Your task to perform on an android device: Go to wifi settings Image 0: 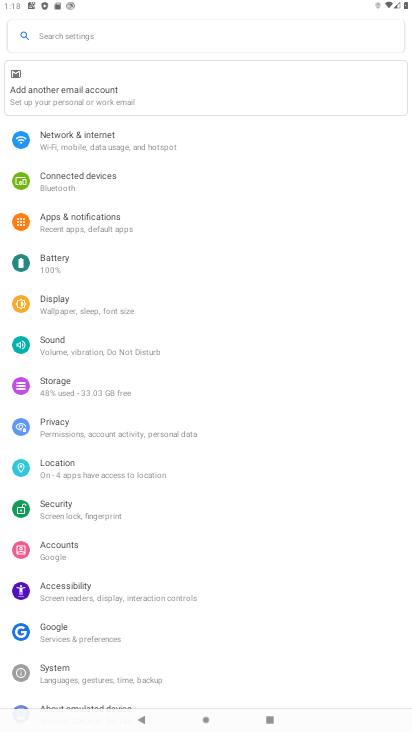
Step 0: press home button
Your task to perform on an android device: Go to wifi settings Image 1: 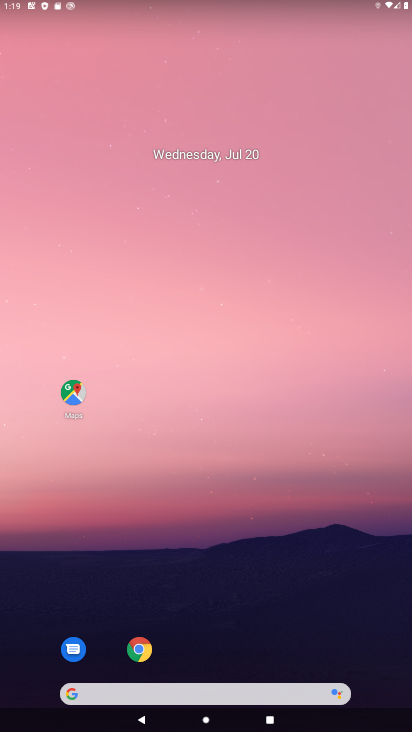
Step 1: drag from (247, 641) to (306, 442)
Your task to perform on an android device: Go to wifi settings Image 2: 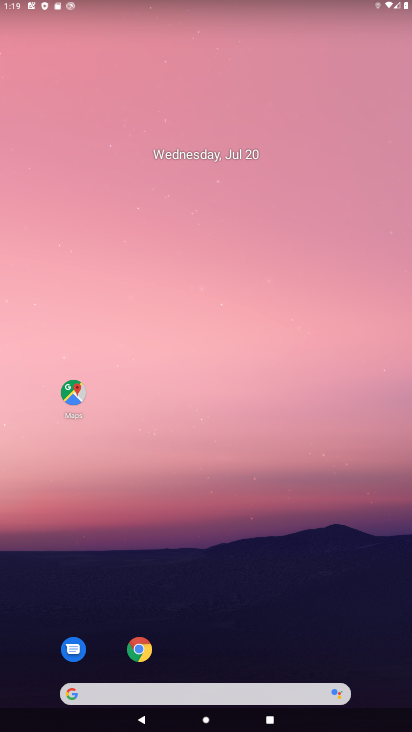
Step 2: drag from (320, 31) to (309, 409)
Your task to perform on an android device: Go to wifi settings Image 3: 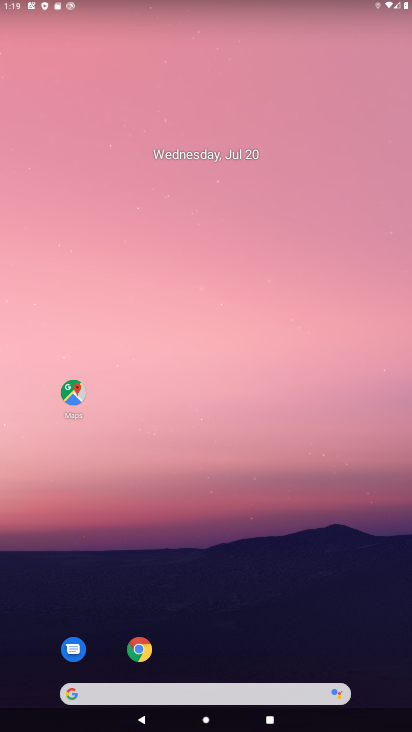
Step 3: drag from (375, 2) to (354, 337)
Your task to perform on an android device: Go to wifi settings Image 4: 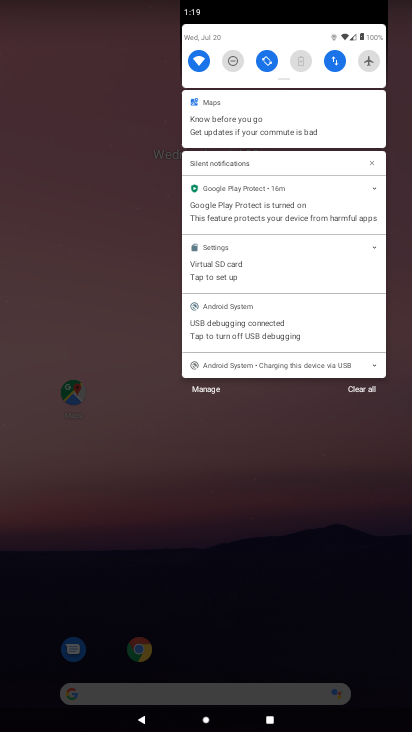
Step 4: click (190, 61)
Your task to perform on an android device: Go to wifi settings Image 5: 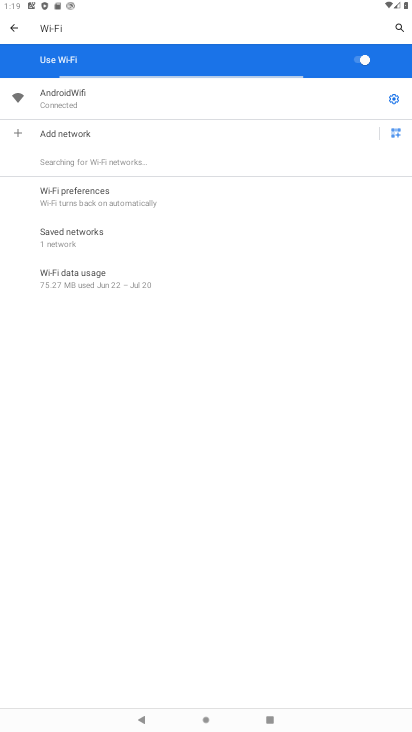
Step 5: task complete